Your task to perform on an android device: find photos in the google photos app Image 0: 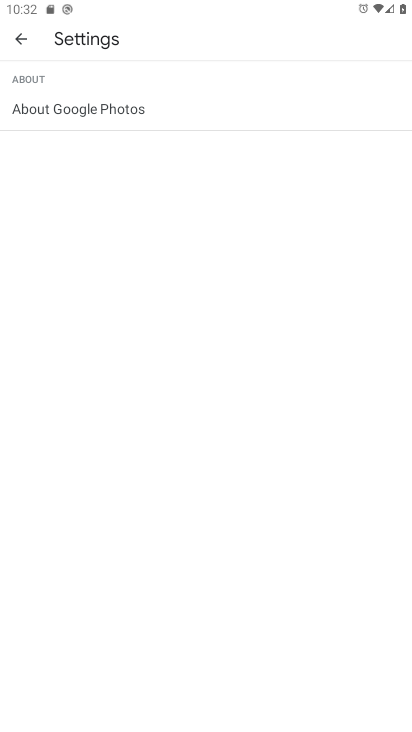
Step 0: press home button
Your task to perform on an android device: find photos in the google photos app Image 1: 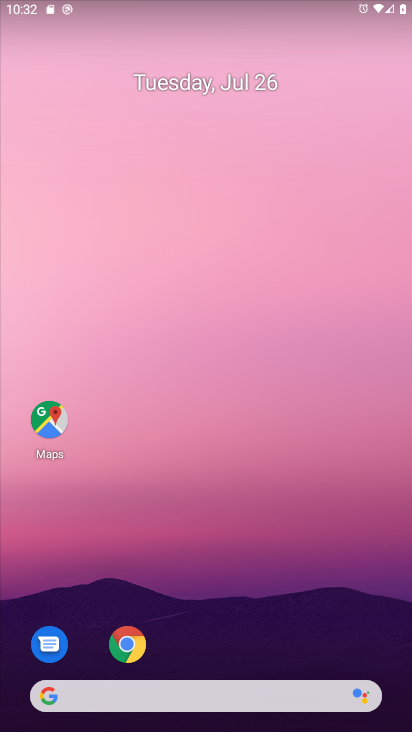
Step 1: drag from (209, 601) to (295, 25)
Your task to perform on an android device: find photos in the google photos app Image 2: 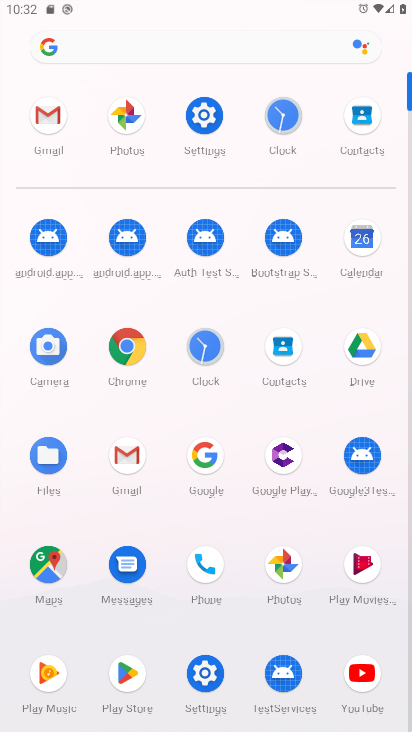
Step 2: click (287, 580)
Your task to perform on an android device: find photos in the google photos app Image 3: 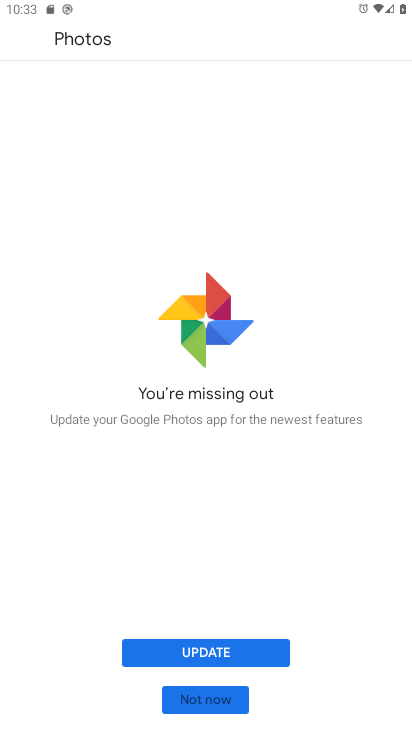
Step 3: click (219, 707)
Your task to perform on an android device: find photos in the google photos app Image 4: 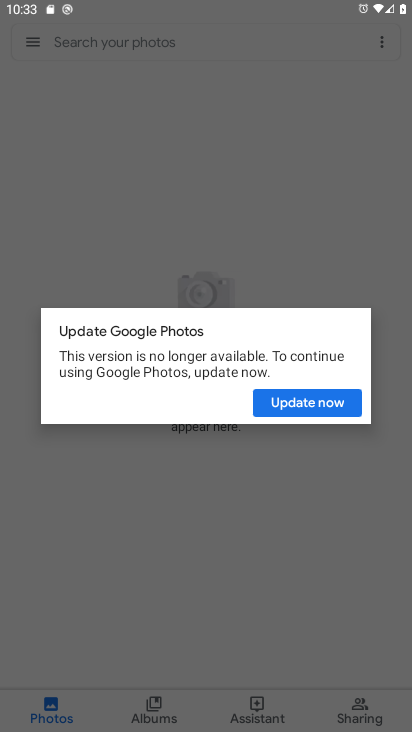
Step 4: click (309, 402)
Your task to perform on an android device: find photos in the google photos app Image 5: 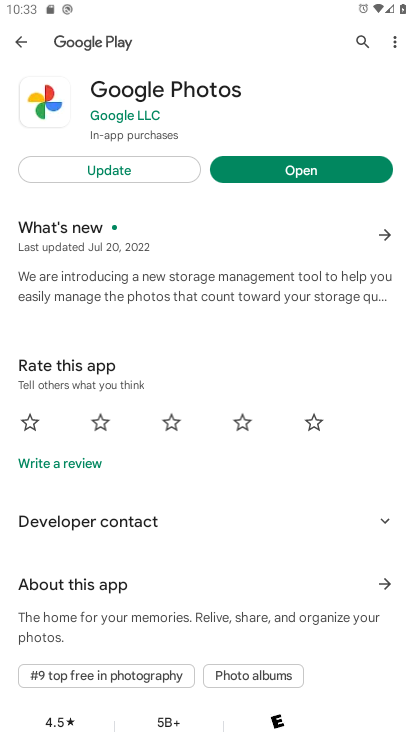
Step 5: click (315, 170)
Your task to perform on an android device: find photos in the google photos app Image 6: 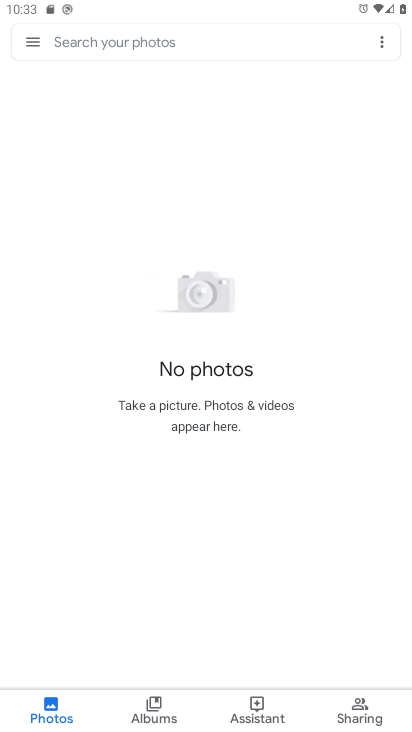
Step 6: task complete